Your task to perform on an android device: Go to settings Image 0: 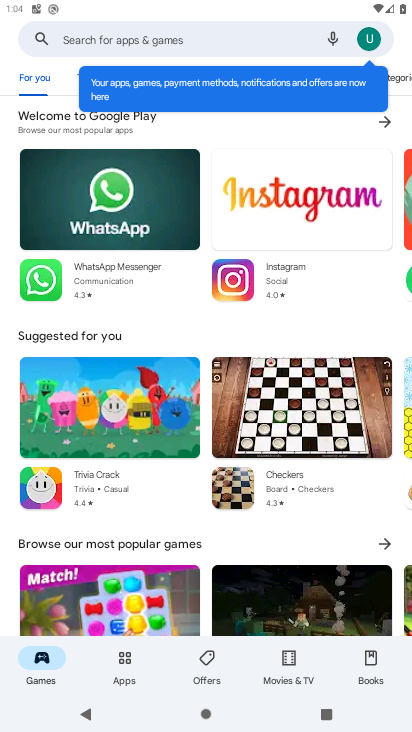
Step 0: press home button
Your task to perform on an android device: Go to settings Image 1: 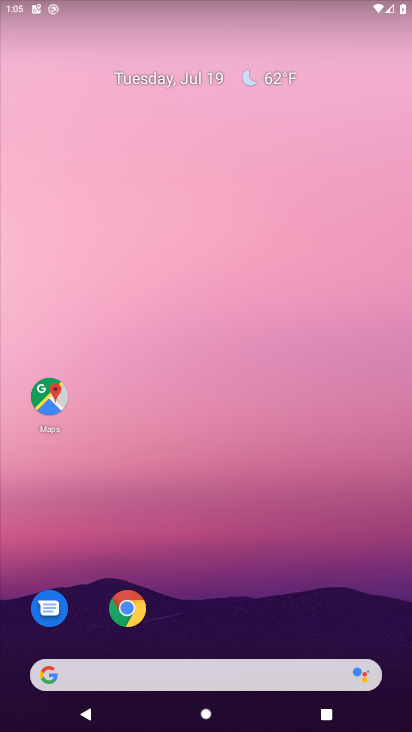
Step 1: drag from (240, 627) to (310, 31)
Your task to perform on an android device: Go to settings Image 2: 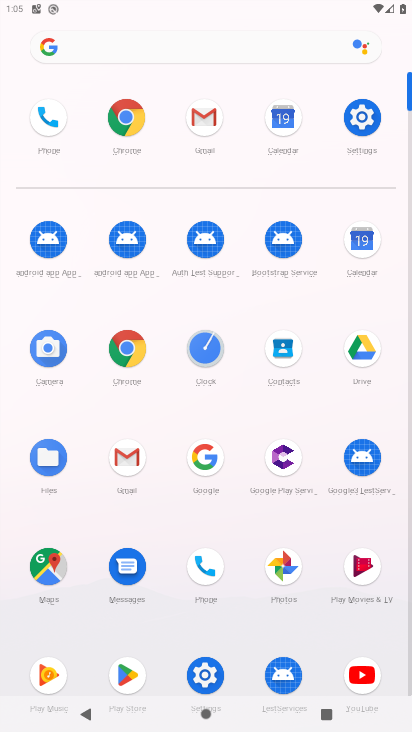
Step 2: click (361, 108)
Your task to perform on an android device: Go to settings Image 3: 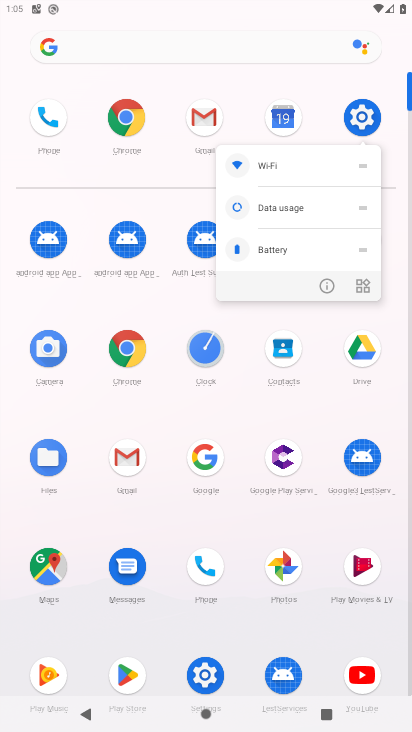
Step 3: click (358, 113)
Your task to perform on an android device: Go to settings Image 4: 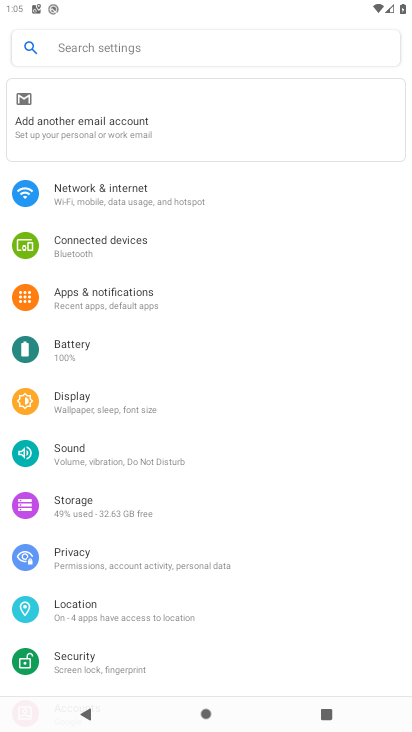
Step 4: task complete